Your task to perform on an android device: Check the news Image 0: 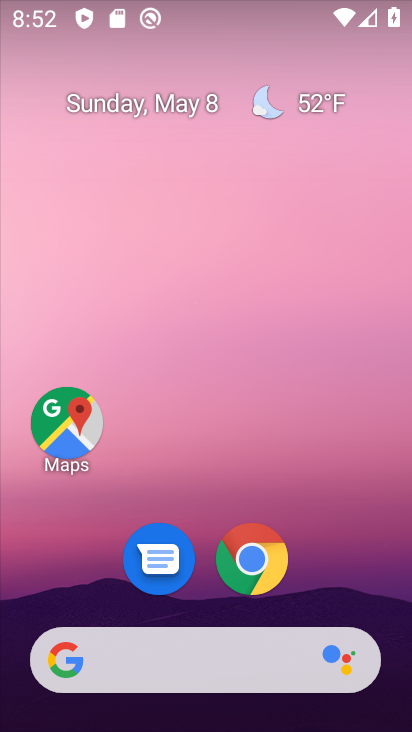
Step 0: drag from (7, 254) to (410, 606)
Your task to perform on an android device: Check the news Image 1: 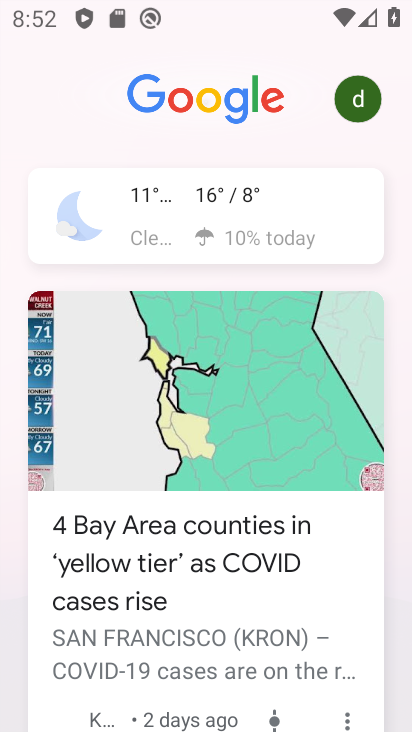
Step 1: task complete